Your task to perform on an android device: find which apps use the phone's location Image 0: 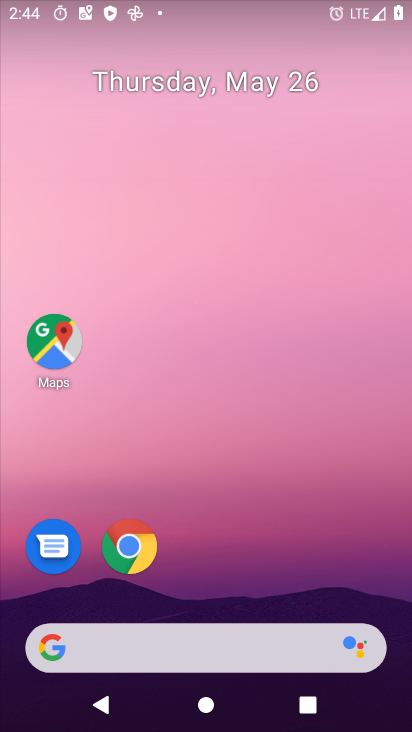
Step 0: drag from (266, 214) to (276, 134)
Your task to perform on an android device: find which apps use the phone's location Image 1: 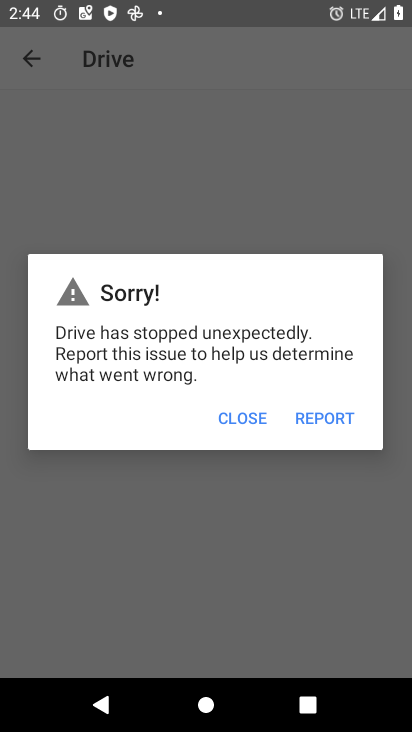
Step 1: press home button
Your task to perform on an android device: find which apps use the phone's location Image 2: 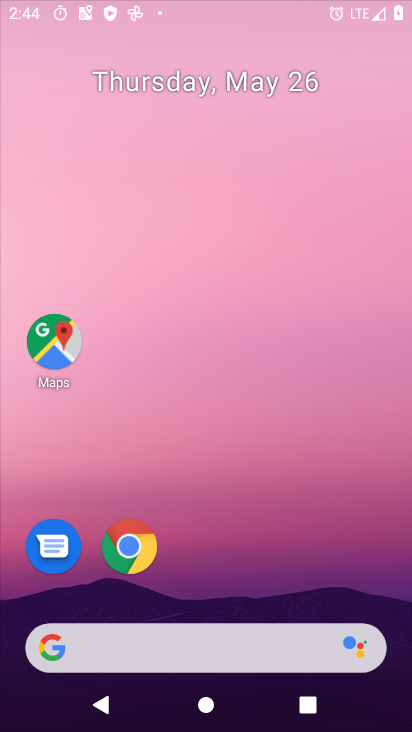
Step 2: drag from (230, 561) to (330, 48)
Your task to perform on an android device: find which apps use the phone's location Image 3: 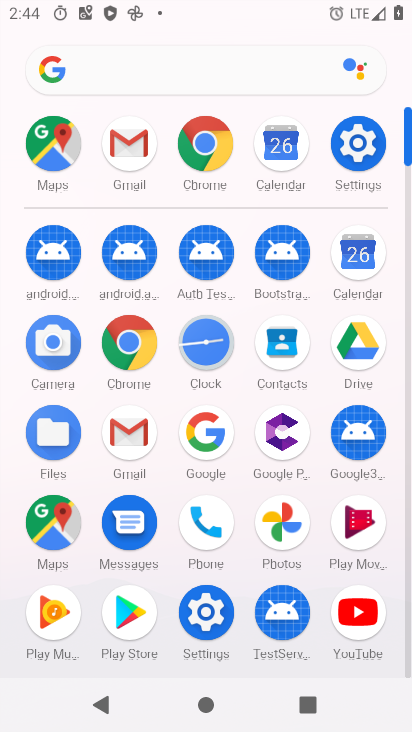
Step 3: click (352, 148)
Your task to perform on an android device: find which apps use the phone's location Image 4: 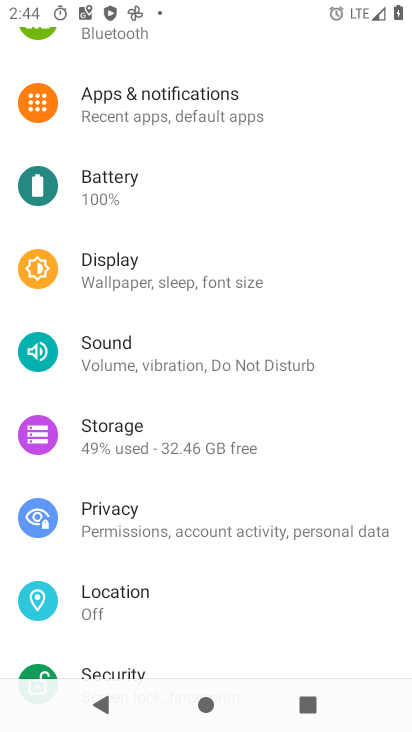
Step 4: click (123, 592)
Your task to perform on an android device: find which apps use the phone's location Image 5: 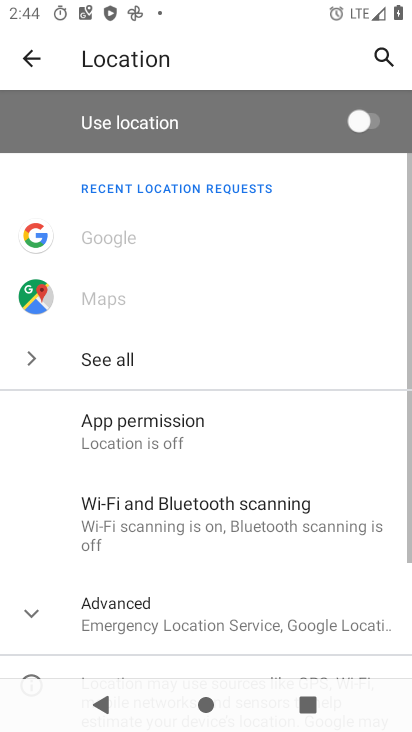
Step 5: click (132, 411)
Your task to perform on an android device: find which apps use the phone's location Image 6: 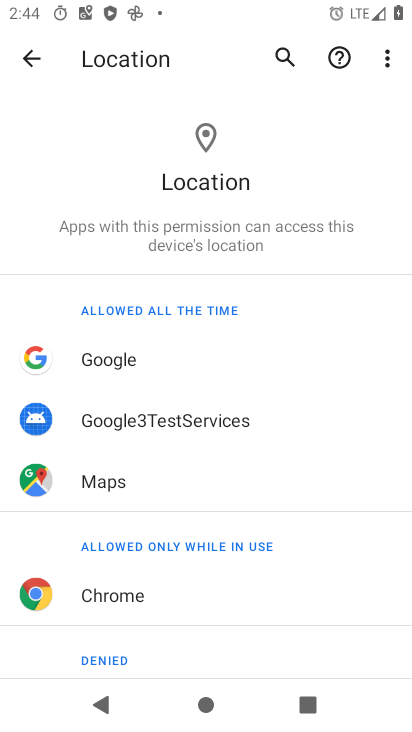
Step 6: task complete